Your task to perform on an android device: Go to location settings Image 0: 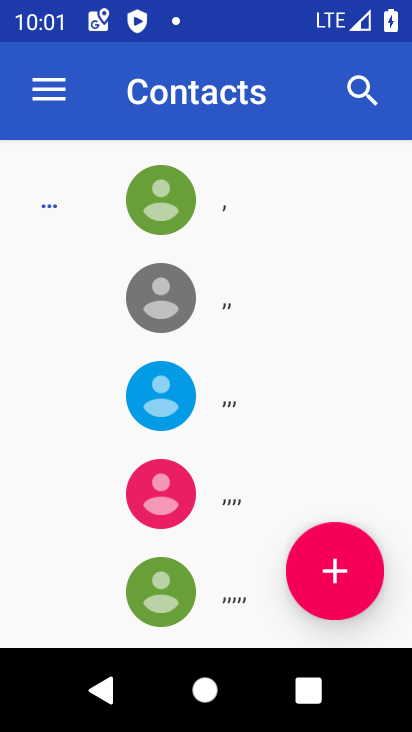
Step 0: press back button
Your task to perform on an android device: Go to location settings Image 1: 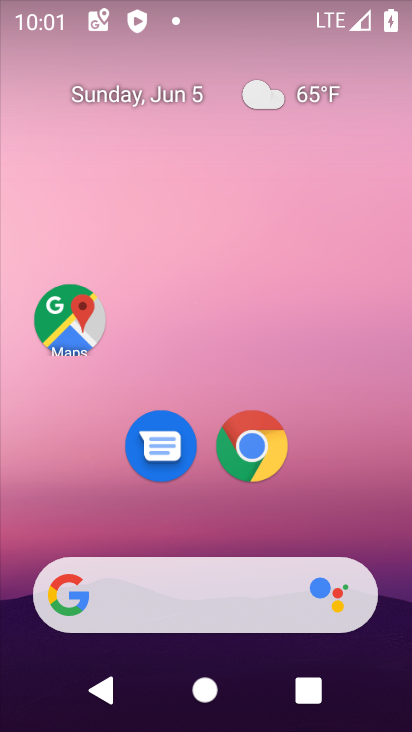
Step 1: drag from (198, 549) to (236, 27)
Your task to perform on an android device: Go to location settings Image 2: 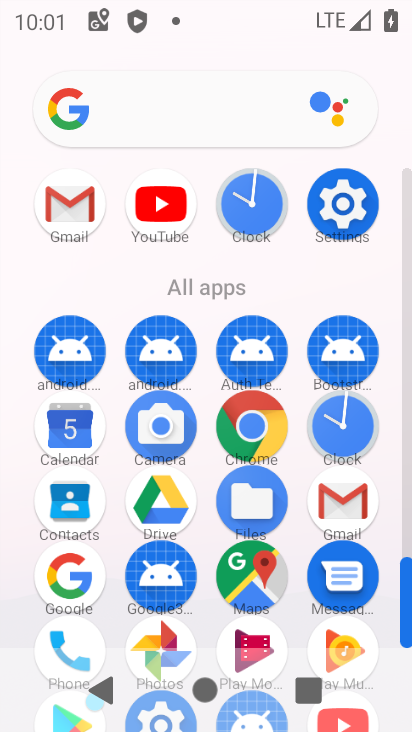
Step 2: click (334, 217)
Your task to perform on an android device: Go to location settings Image 3: 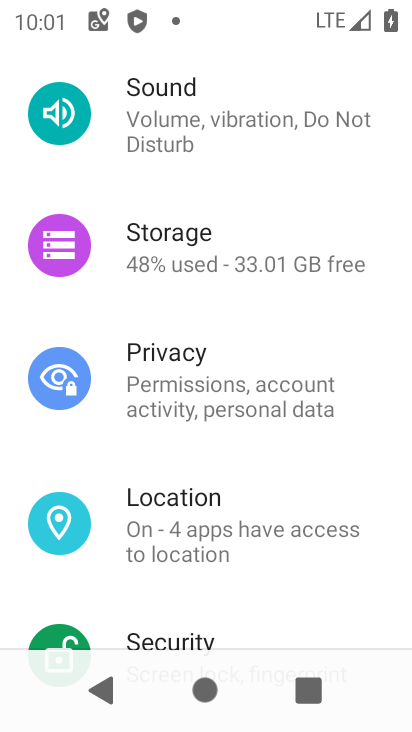
Step 3: click (219, 540)
Your task to perform on an android device: Go to location settings Image 4: 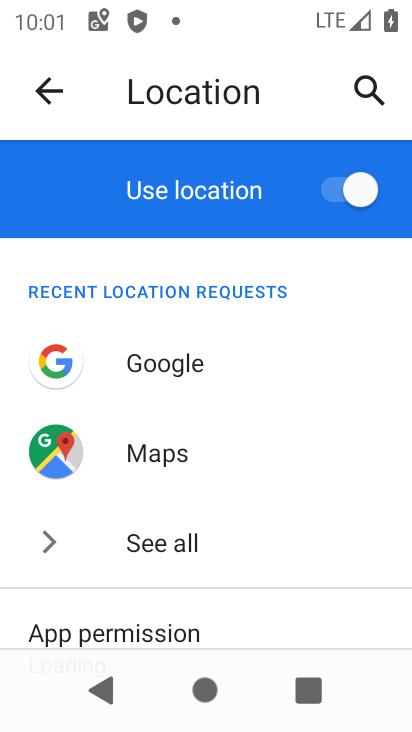
Step 4: task complete